Your task to perform on an android device: Open Yahoo.com Image 0: 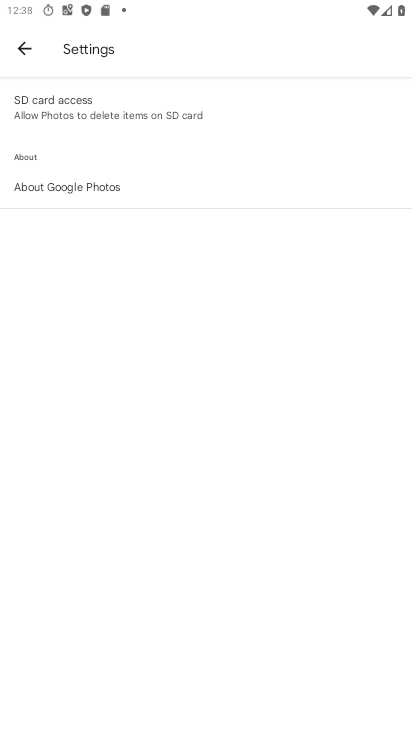
Step 0: press home button
Your task to perform on an android device: Open Yahoo.com Image 1: 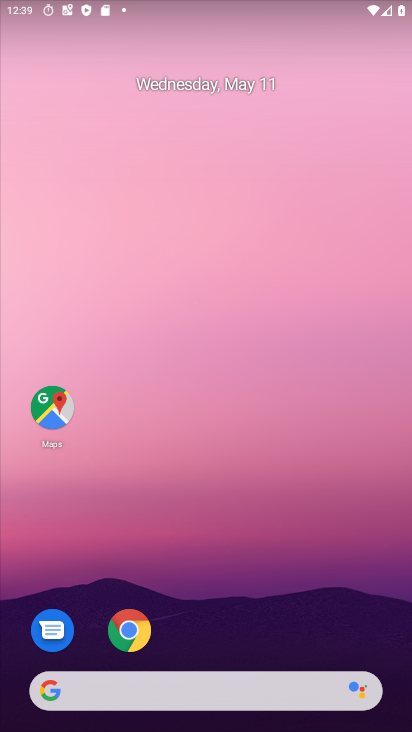
Step 1: drag from (282, 585) to (303, 99)
Your task to perform on an android device: Open Yahoo.com Image 2: 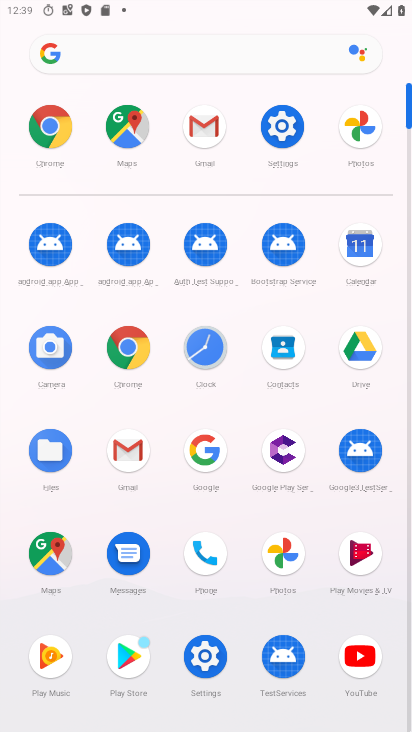
Step 2: click (47, 126)
Your task to perform on an android device: Open Yahoo.com Image 3: 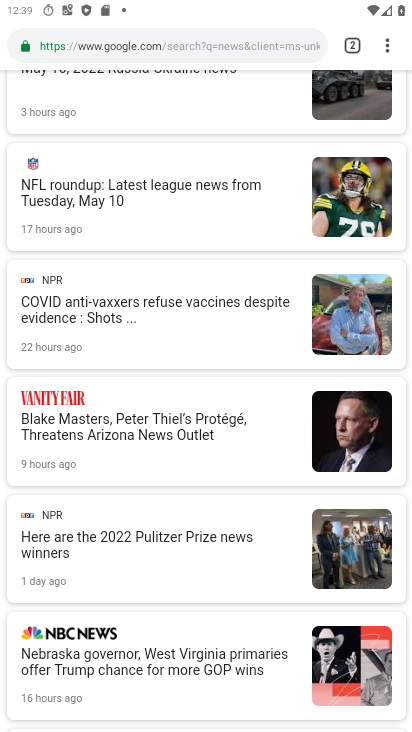
Step 3: drag from (215, 116) to (279, 696)
Your task to perform on an android device: Open Yahoo.com Image 4: 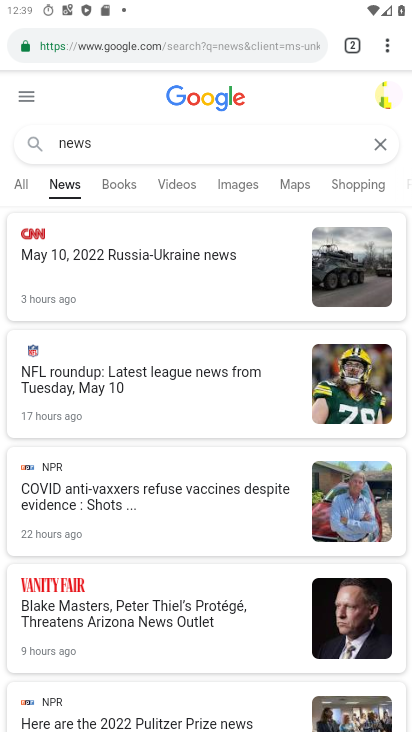
Step 4: click (154, 37)
Your task to perform on an android device: Open Yahoo.com Image 5: 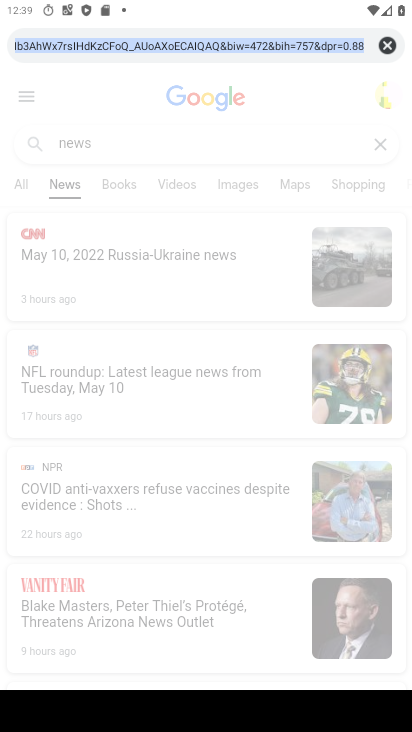
Step 5: type "yahoo.com"
Your task to perform on an android device: Open Yahoo.com Image 6: 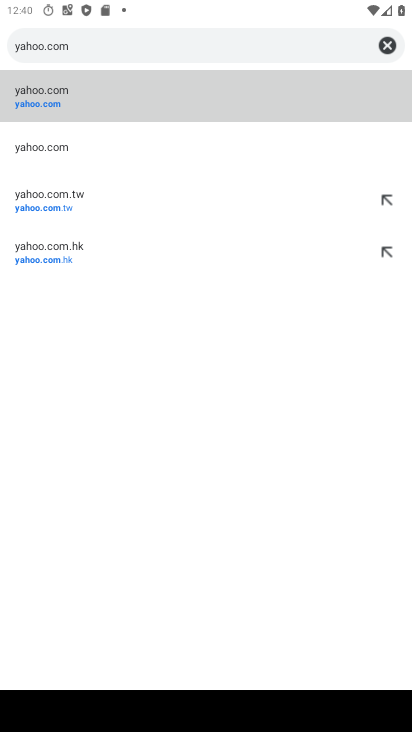
Step 6: click (62, 87)
Your task to perform on an android device: Open Yahoo.com Image 7: 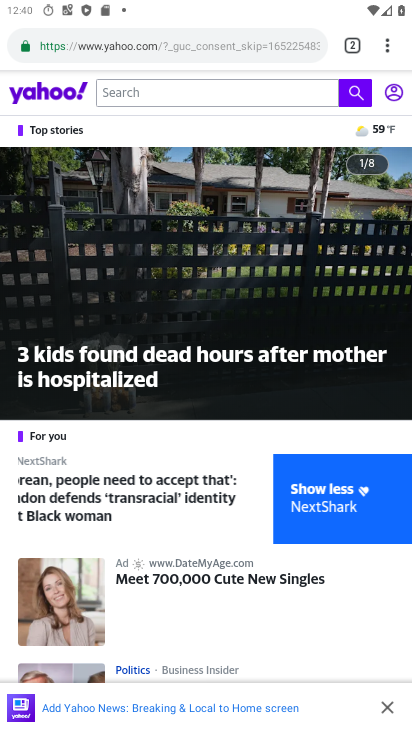
Step 7: task complete